Your task to perform on an android device: toggle show notifications on the lock screen Image 0: 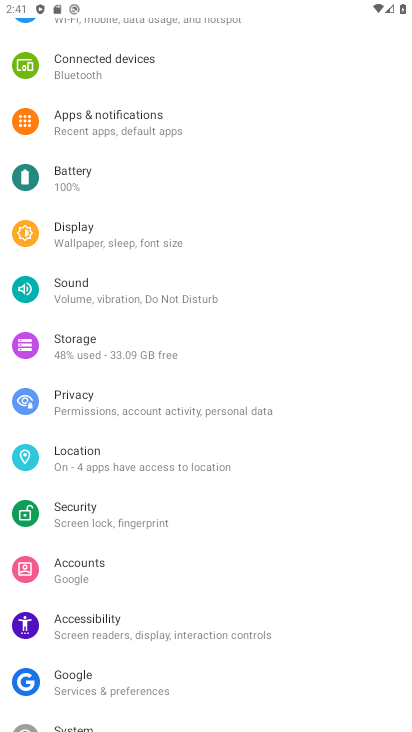
Step 0: press home button
Your task to perform on an android device: toggle show notifications on the lock screen Image 1: 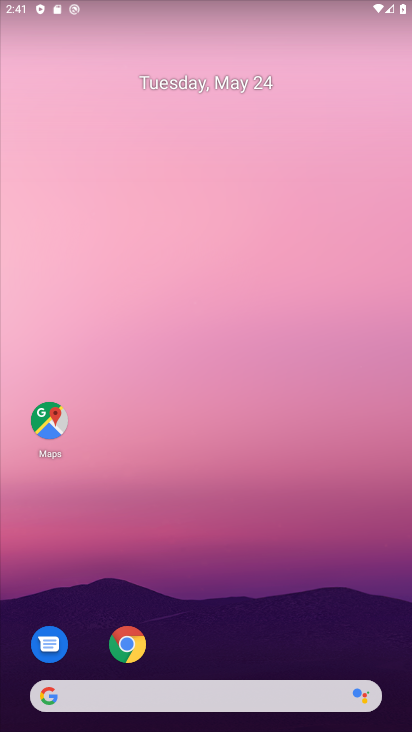
Step 1: drag from (333, 635) to (323, 310)
Your task to perform on an android device: toggle show notifications on the lock screen Image 2: 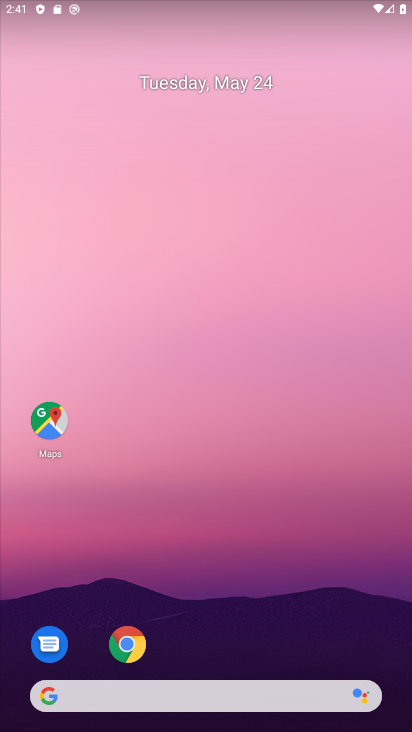
Step 2: drag from (332, 620) to (326, 307)
Your task to perform on an android device: toggle show notifications on the lock screen Image 3: 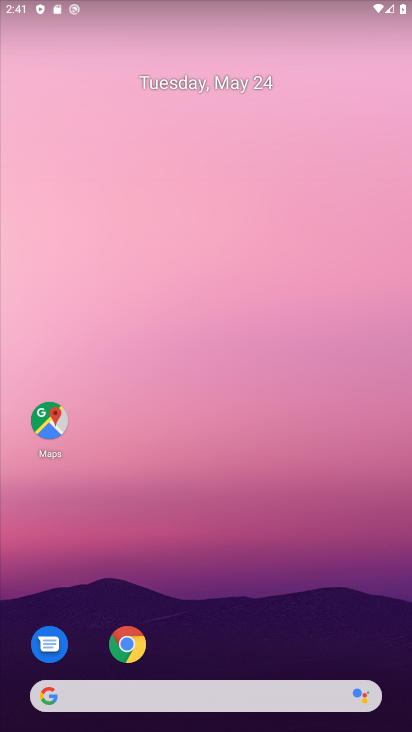
Step 3: drag from (328, 621) to (329, 221)
Your task to perform on an android device: toggle show notifications on the lock screen Image 4: 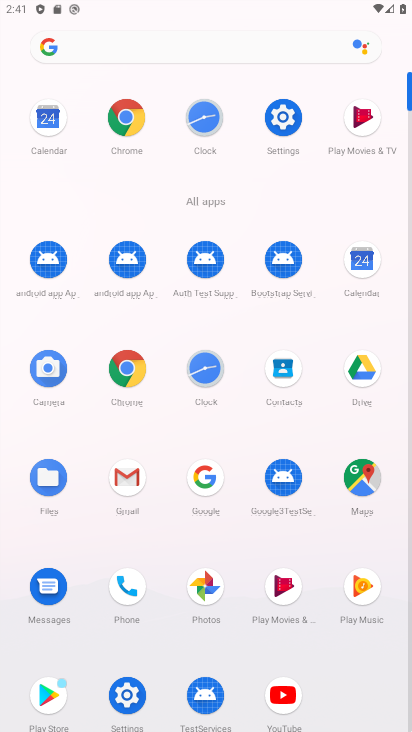
Step 4: click (273, 116)
Your task to perform on an android device: toggle show notifications on the lock screen Image 5: 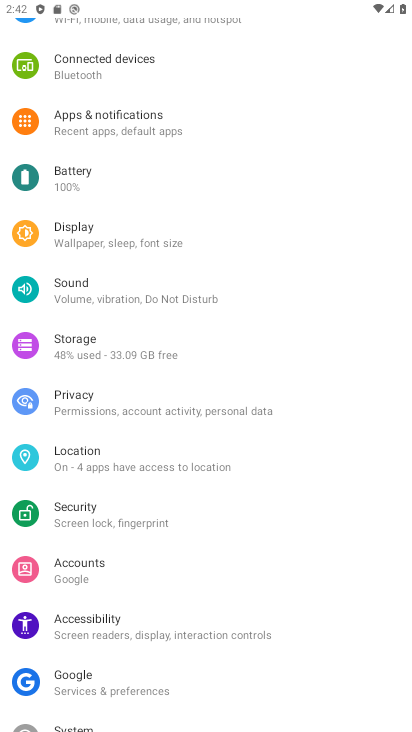
Step 5: click (151, 125)
Your task to perform on an android device: toggle show notifications on the lock screen Image 6: 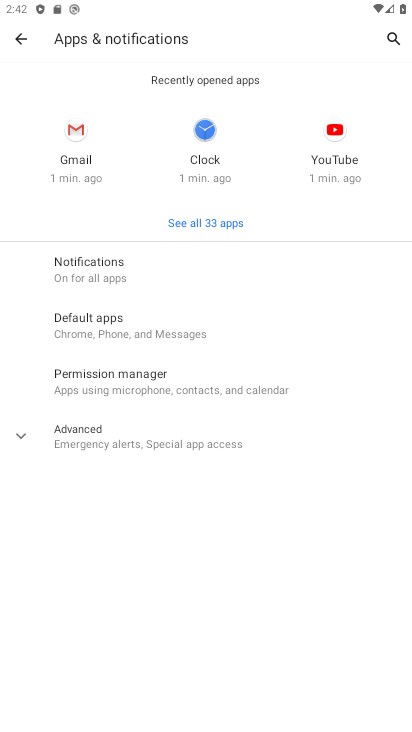
Step 6: click (154, 279)
Your task to perform on an android device: toggle show notifications on the lock screen Image 7: 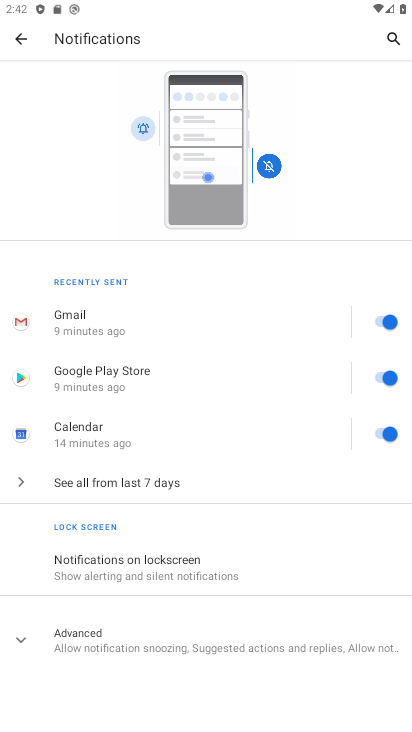
Step 7: click (159, 577)
Your task to perform on an android device: toggle show notifications on the lock screen Image 8: 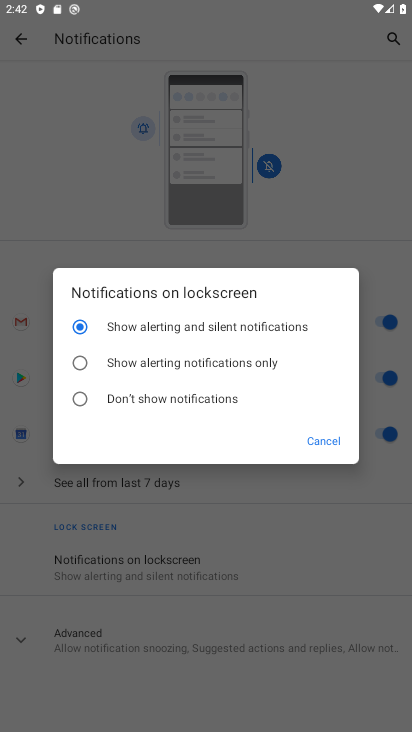
Step 8: task complete